Your task to perform on an android device: What's the weather? Image 0: 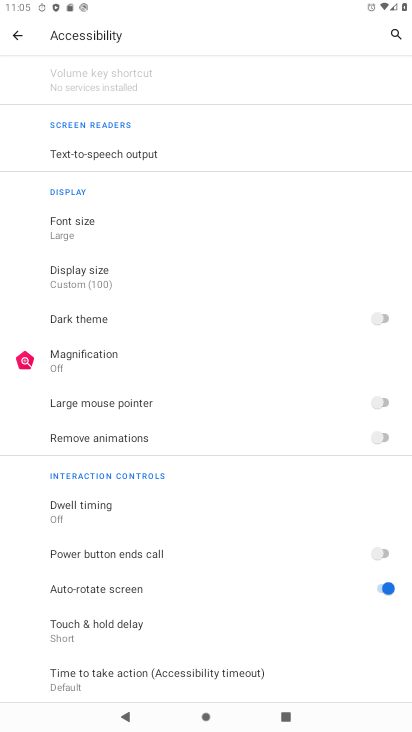
Step 0: press home button
Your task to perform on an android device: What's the weather? Image 1: 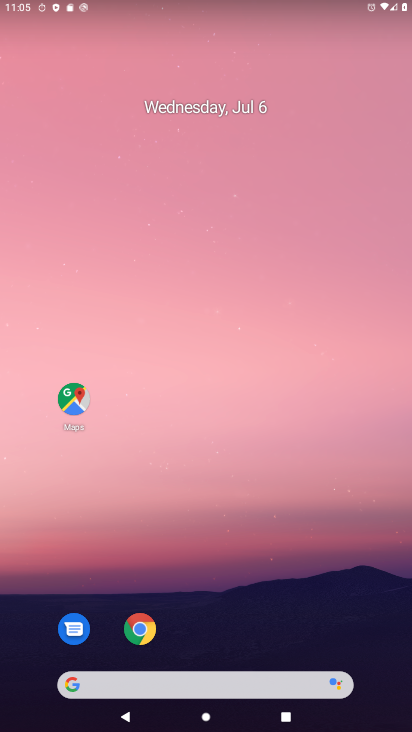
Step 1: drag from (242, 588) to (268, 19)
Your task to perform on an android device: What's the weather? Image 2: 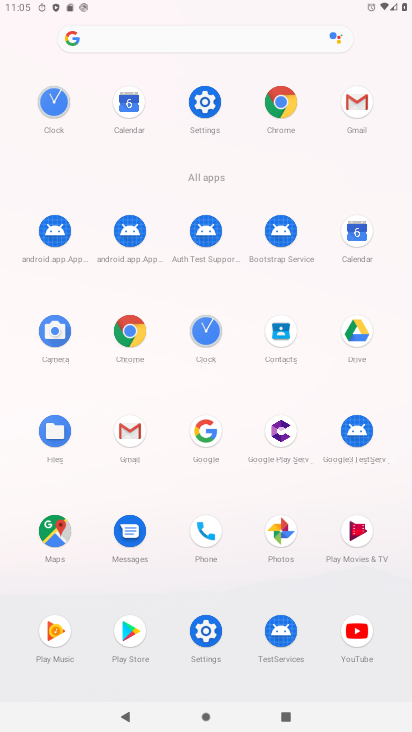
Step 2: click (206, 429)
Your task to perform on an android device: What's the weather? Image 3: 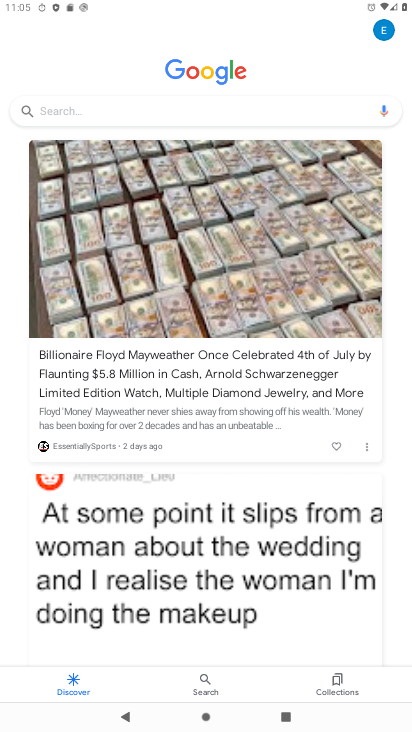
Step 3: click (143, 111)
Your task to perform on an android device: What's the weather? Image 4: 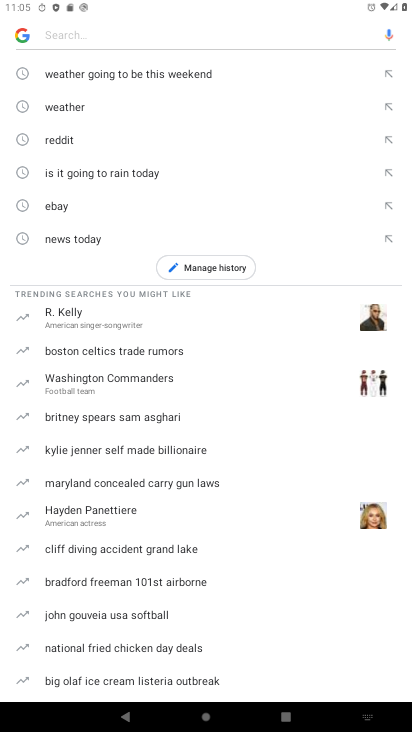
Step 4: click (84, 111)
Your task to perform on an android device: What's the weather? Image 5: 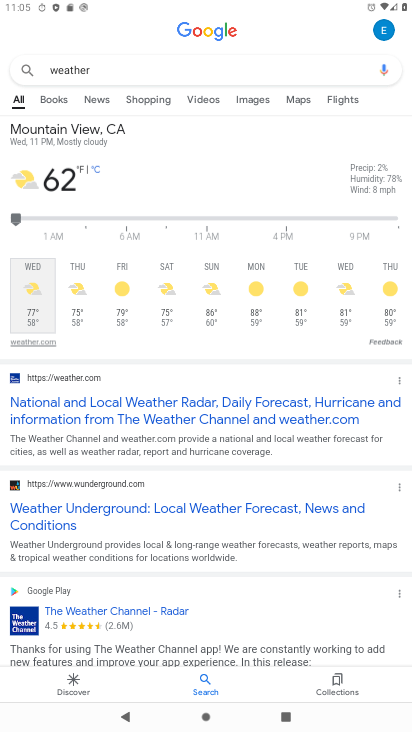
Step 5: task complete